Your task to perform on an android device: turn smart compose on in the gmail app Image 0: 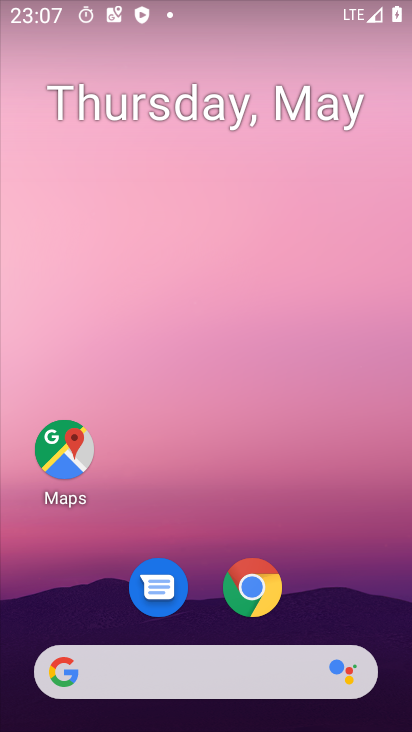
Step 0: drag from (385, 625) to (170, 9)
Your task to perform on an android device: turn smart compose on in the gmail app Image 1: 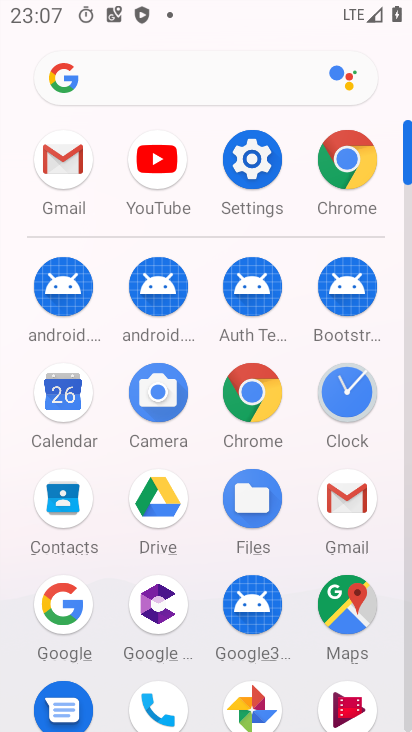
Step 1: click (63, 162)
Your task to perform on an android device: turn smart compose on in the gmail app Image 2: 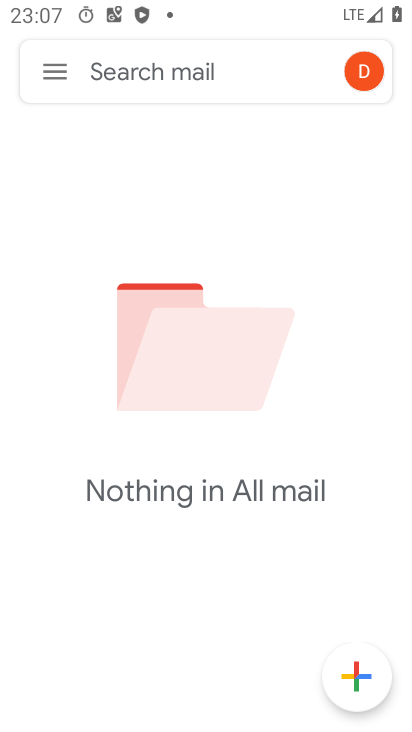
Step 2: click (57, 66)
Your task to perform on an android device: turn smart compose on in the gmail app Image 3: 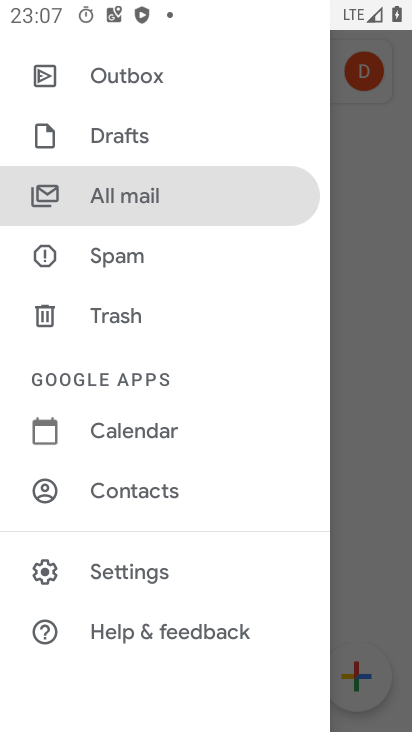
Step 3: click (143, 572)
Your task to perform on an android device: turn smart compose on in the gmail app Image 4: 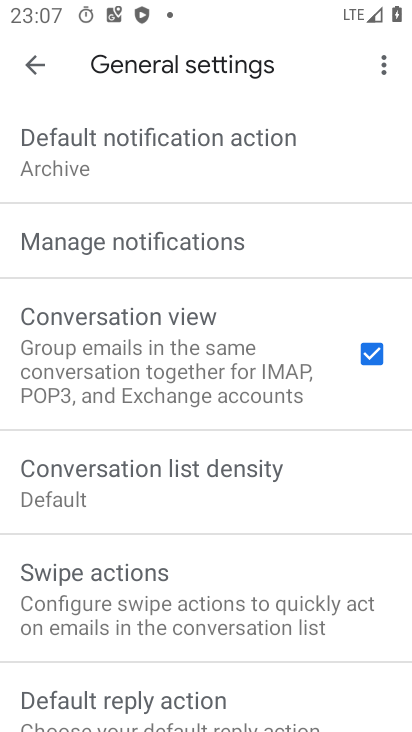
Step 4: click (38, 54)
Your task to perform on an android device: turn smart compose on in the gmail app Image 5: 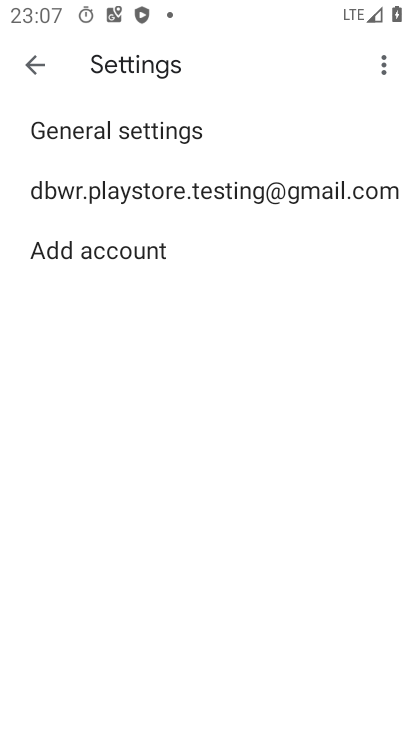
Step 5: click (136, 196)
Your task to perform on an android device: turn smart compose on in the gmail app Image 6: 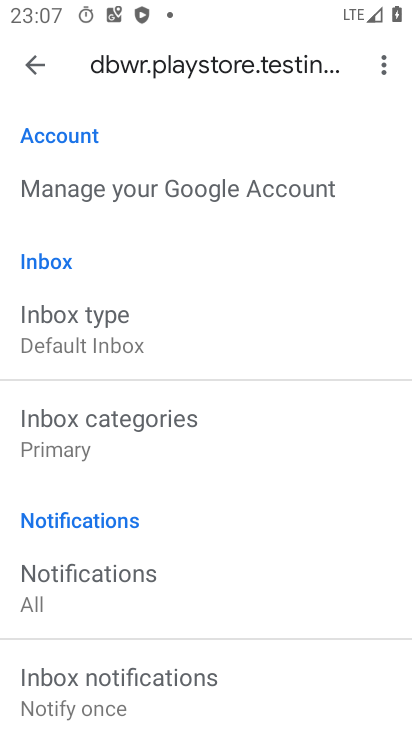
Step 6: task complete